Your task to perform on an android device: Open Wikipedia Image 0: 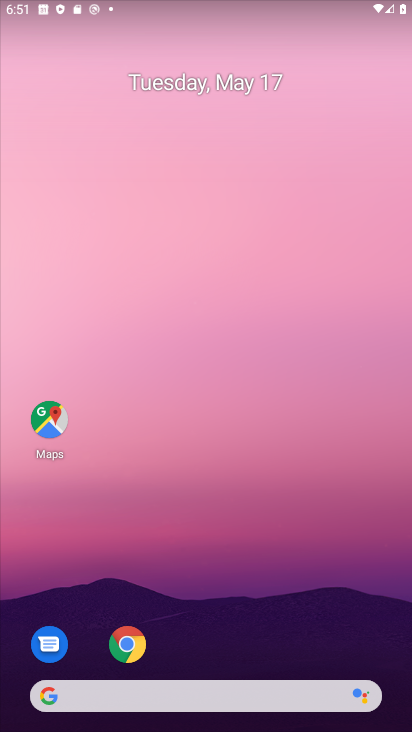
Step 0: drag from (366, 627) to (303, 63)
Your task to perform on an android device: Open Wikipedia Image 1: 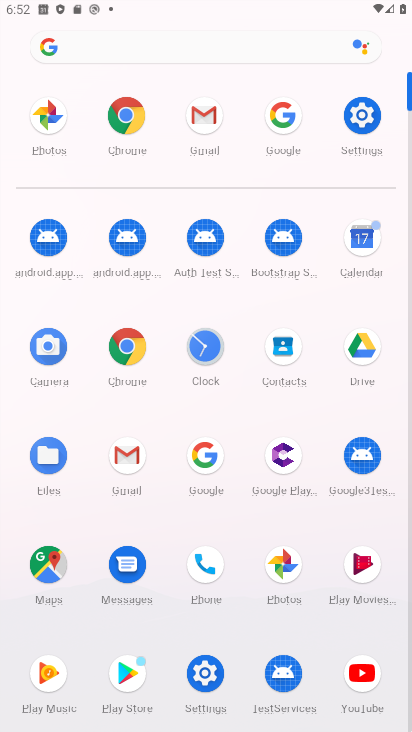
Step 1: click (119, 108)
Your task to perform on an android device: Open Wikipedia Image 2: 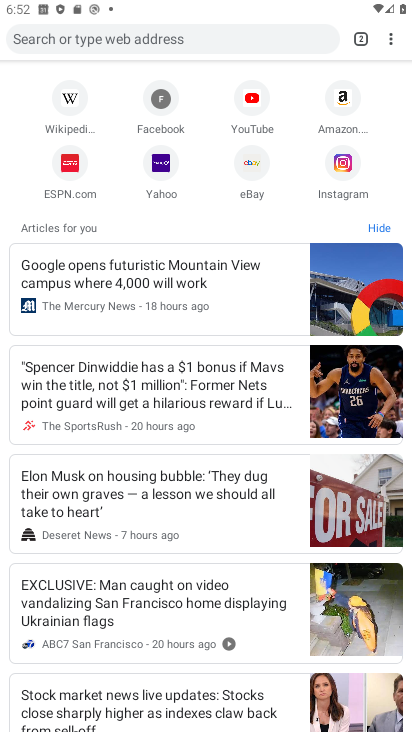
Step 2: click (45, 105)
Your task to perform on an android device: Open Wikipedia Image 3: 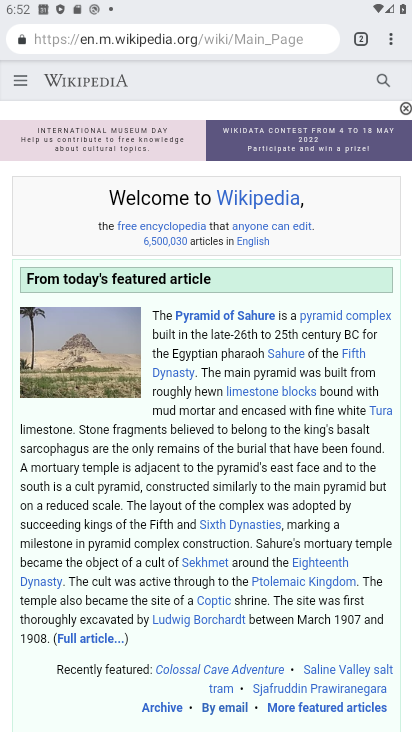
Step 3: task complete